Your task to perform on an android device: Go to wifi settings Image 0: 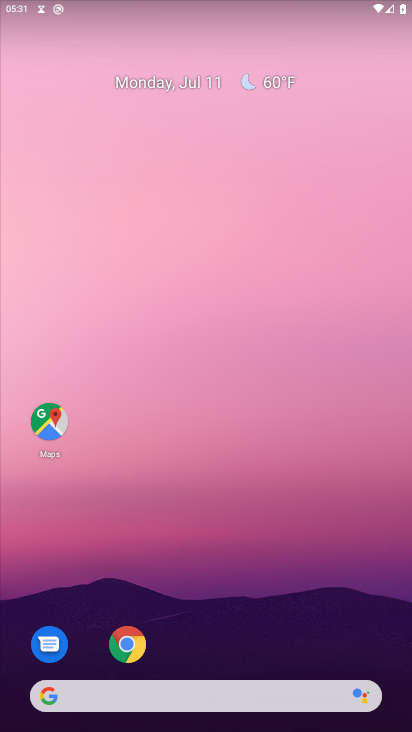
Step 0: drag from (208, 684) to (248, 334)
Your task to perform on an android device: Go to wifi settings Image 1: 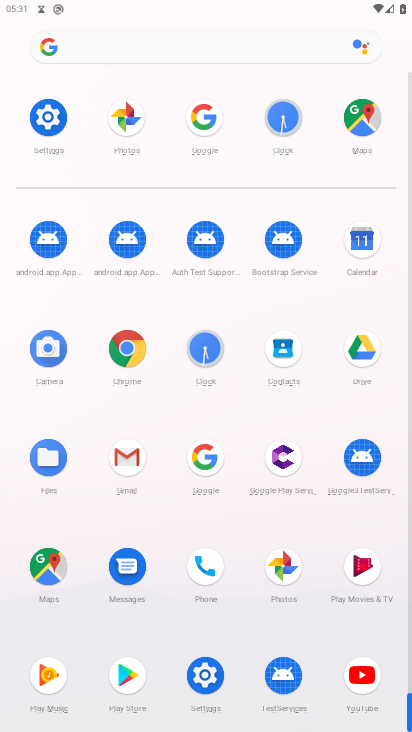
Step 1: click (44, 120)
Your task to perform on an android device: Go to wifi settings Image 2: 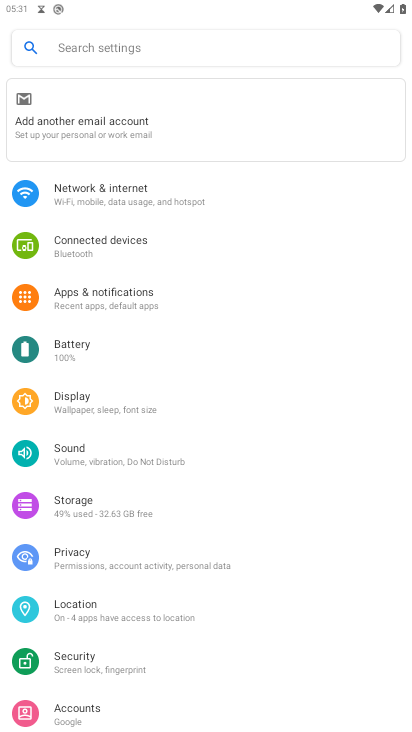
Step 2: click (112, 200)
Your task to perform on an android device: Go to wifi settings Image 3: 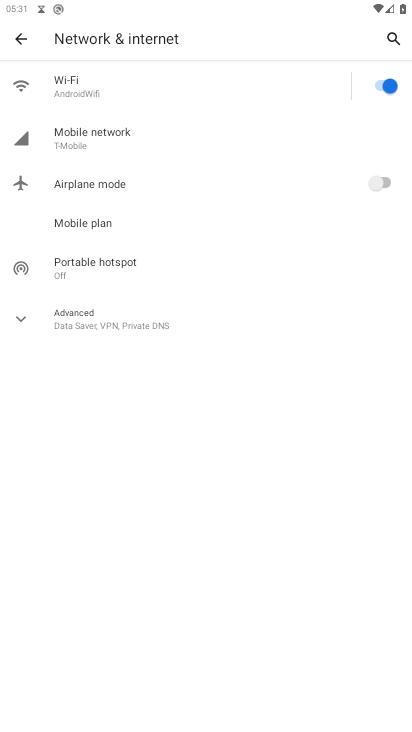
Step 3: click (79, 84)
Your task to perform on an android device: Go to wifi settings Image 4: 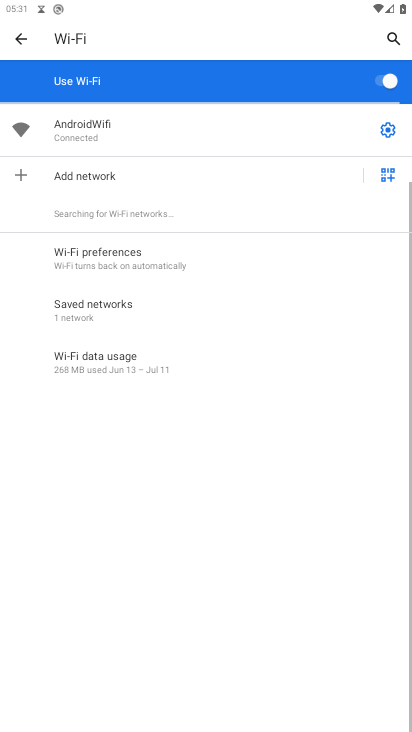
Step 4: click (384, 125)
Your task to perform on an android device: Go to wifi settings Image 5: 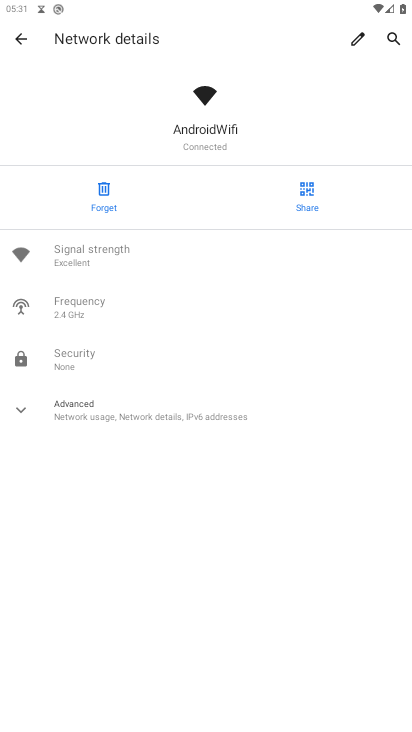
Step 5: click (72, 410)
Your task to perform on an android device: Go to wifi settings Image 6: 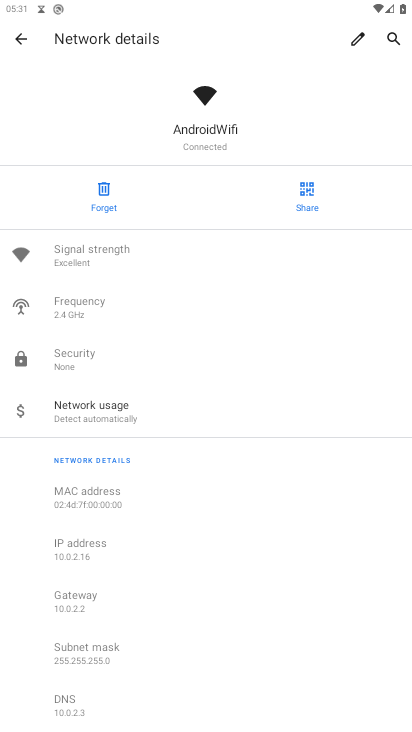
Step 6: task complete